Your task to perform on an android device: turn off javascript in the chrome app Image 0: 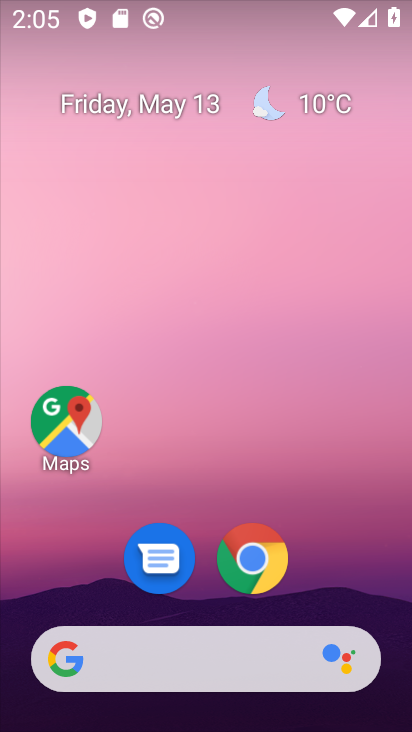
Step 0: click (257, 557)
Your task to perform on an android device: turn off javascript in the chrome app Image 1: 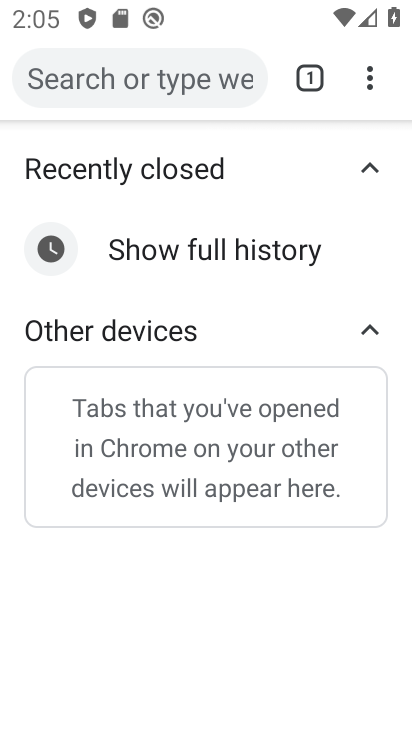
Step 1: click (366, 77)
Your task to perform on an android device: turn off javascript in the chrome app Image 2: 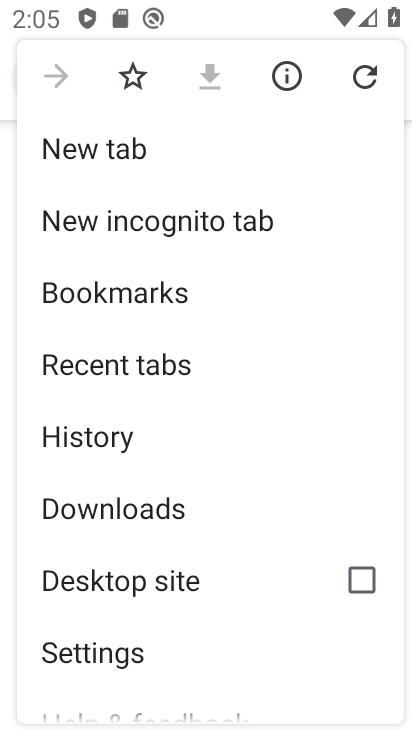
Step 2: drag from (208, 626) to (212, 348)
Your task to perform on an android device: turn off javascript in the chrome app Image 3: 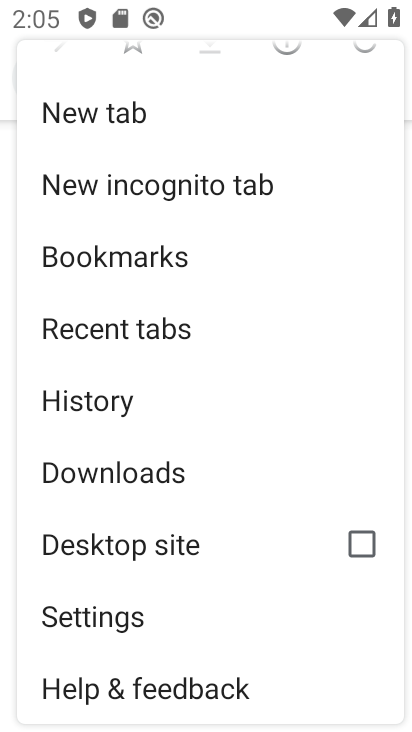
Step 3: click (157, 613)
Your task to perform on an android device: turn off javascript in the chrome app Image 4: 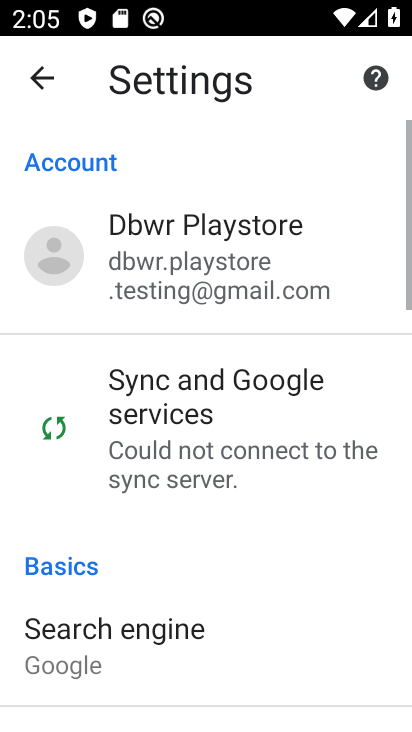
Step 4: drag from (158, 609) to (245, 287)
Your task to perform on an android device: turn off javascript in the chrome app Image 5: 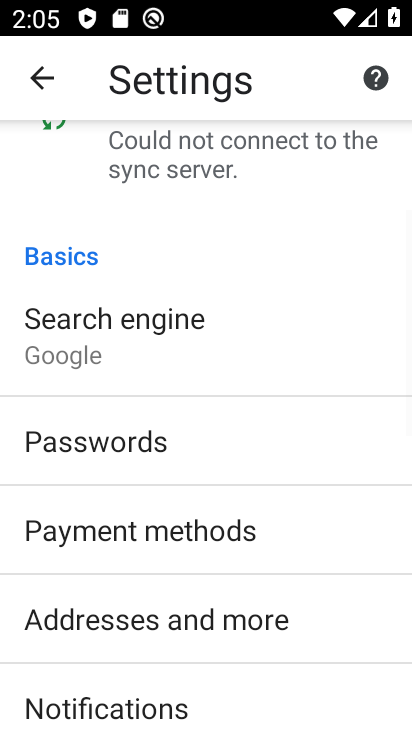
Step 5: drag from (226, 567) to (230, 321)
Your task to perform on an android device: turn off javascript in the chrome app Image 6: 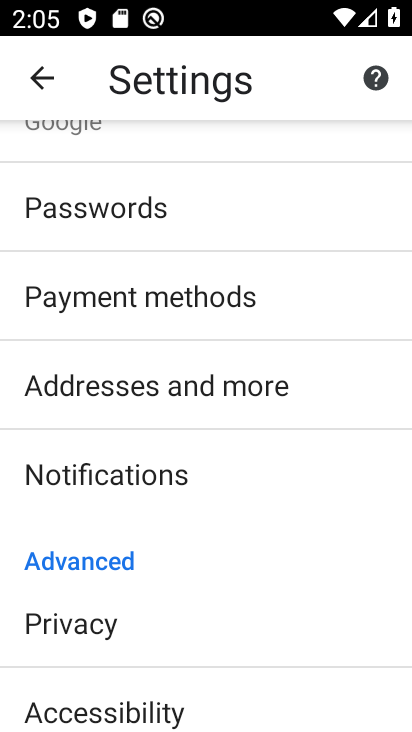
Step 6: drag from (194, 594) to (238, 313)
Your task to perform on an android device: turn off javascript in the chrome app Image 7: 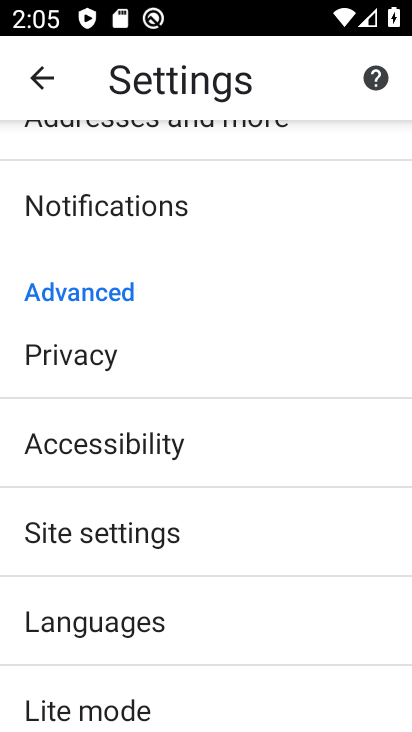
Step 7: click (188, 532)
Your task to perform on an android device: turn off javascript in the chrome app Image 8: 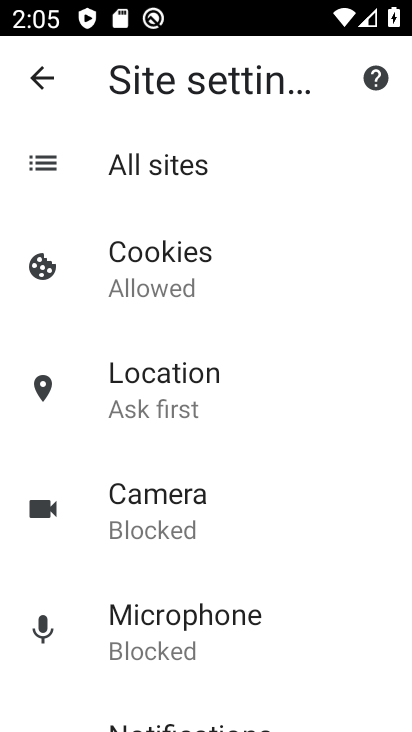
Step 8: drag from (201, 639) to (215, 427)
Your task to perform on an android device: turn off javascript in the chrome app Image 9: 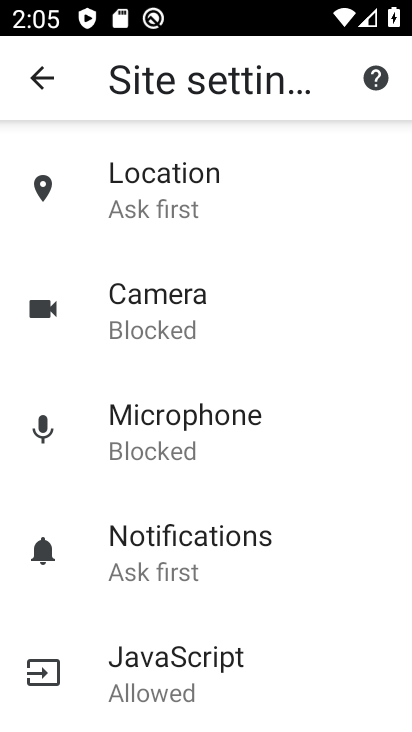
Step 9: click (216, 648)
Your task to perform on an android device: turn off javascript in the chrome app Image 10: 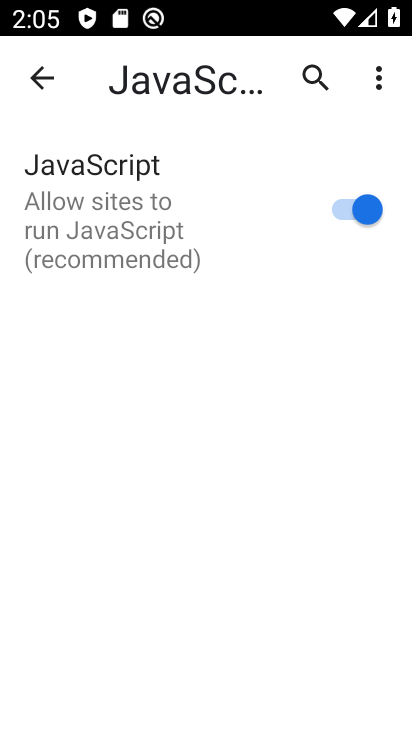
Step 10: click (330, 217)
Your task to perform on an android device: turn off javascript in the chrome app Image 11: 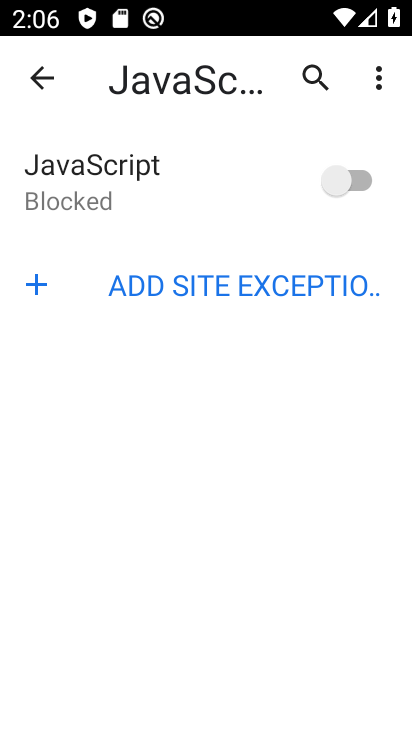
Step 11: task complete